Your task to perform on an android device: uninstall "Grab" Image 0: 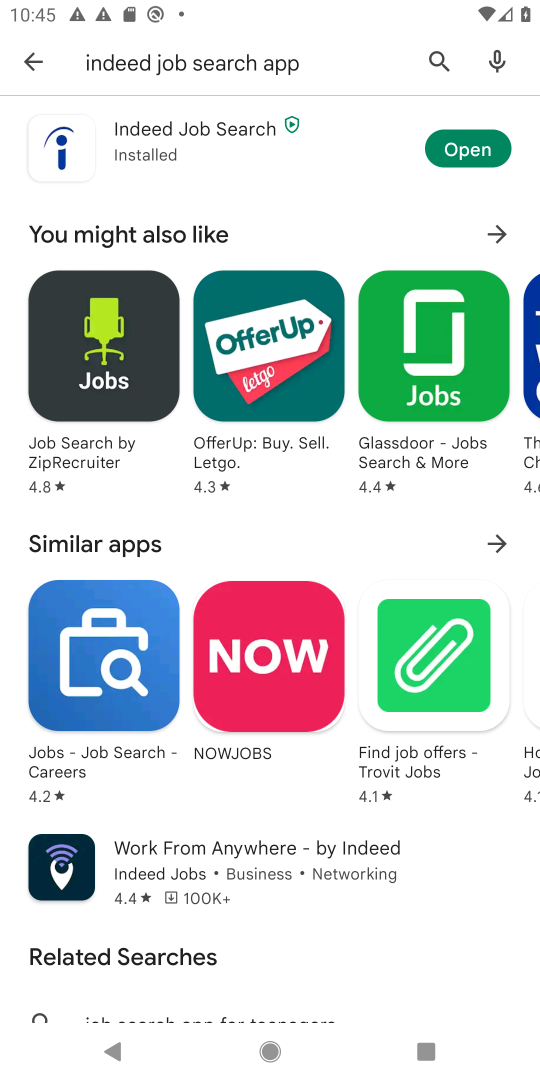
Step 0: click (434, 58)
Your task to perform on an android device: uninstall "Grab" Image 1: 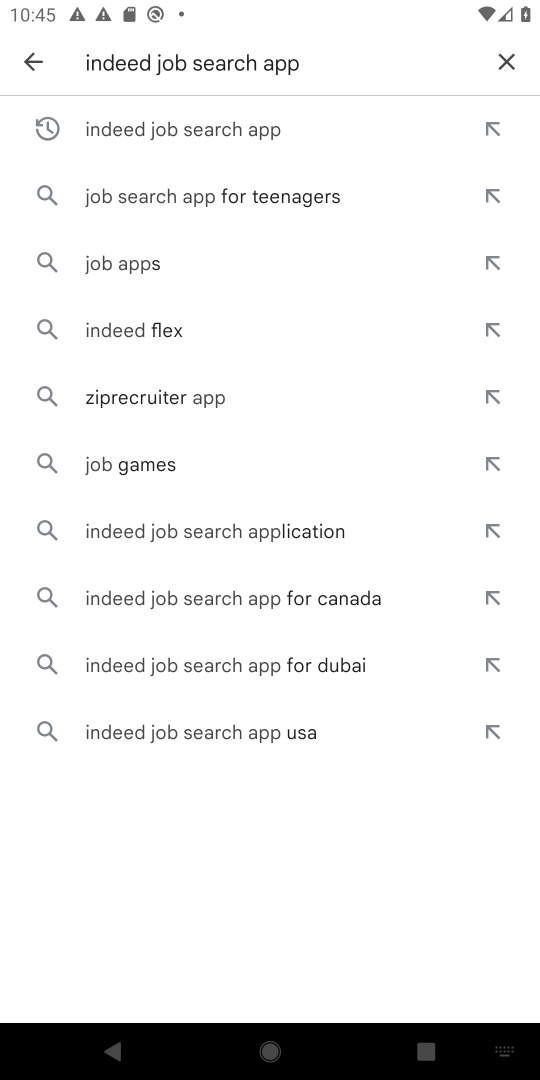
Step 1: click (511, 58)
Your task to perform on an android device: uninstall "Grab" Image 2: 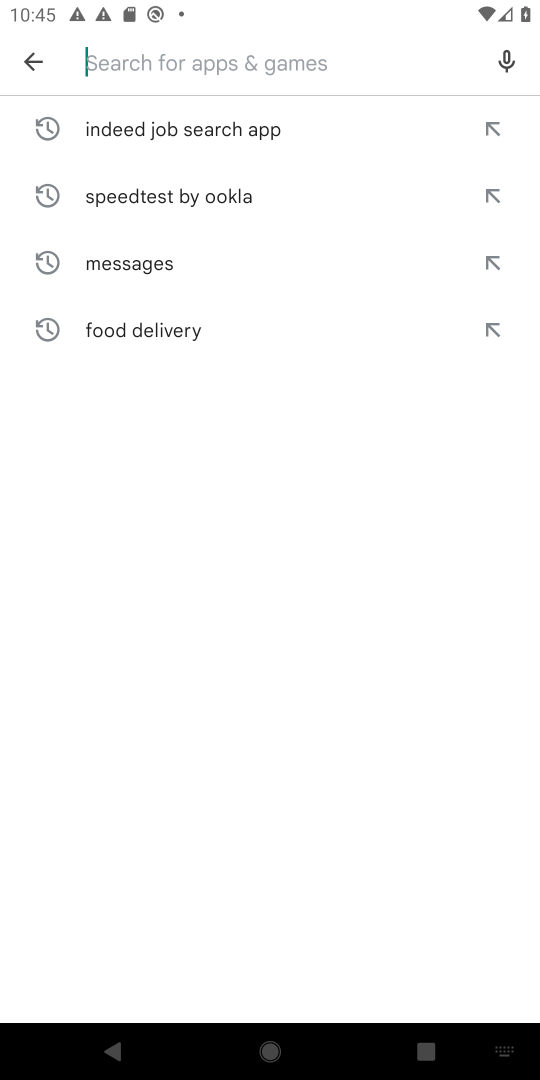
Step 2: type "Grab"
Your task to perform on an android device: uninstall "Grab" Image 3: 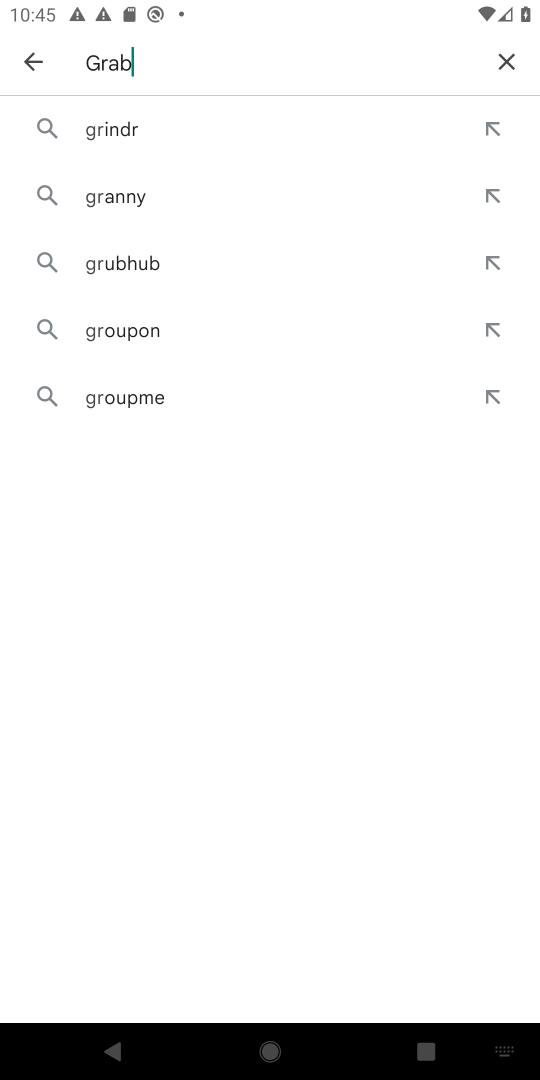
Step 3: type ""
Your task to perform on an android device: uninstall "Grab" Image 4: 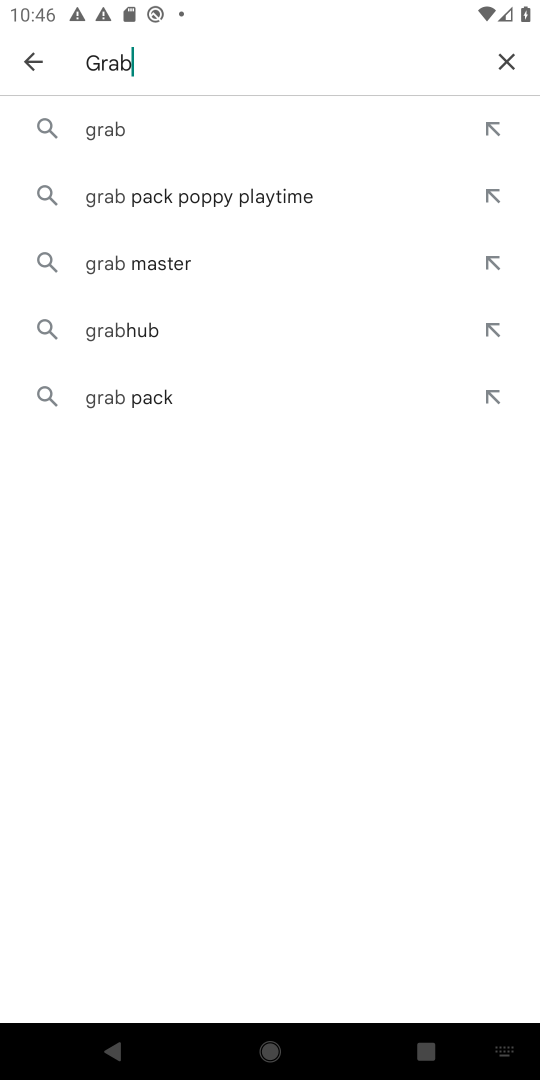
Step 4: click (99, 132)
Your task to perform on an android device: uninstall "Grab" Image 5: 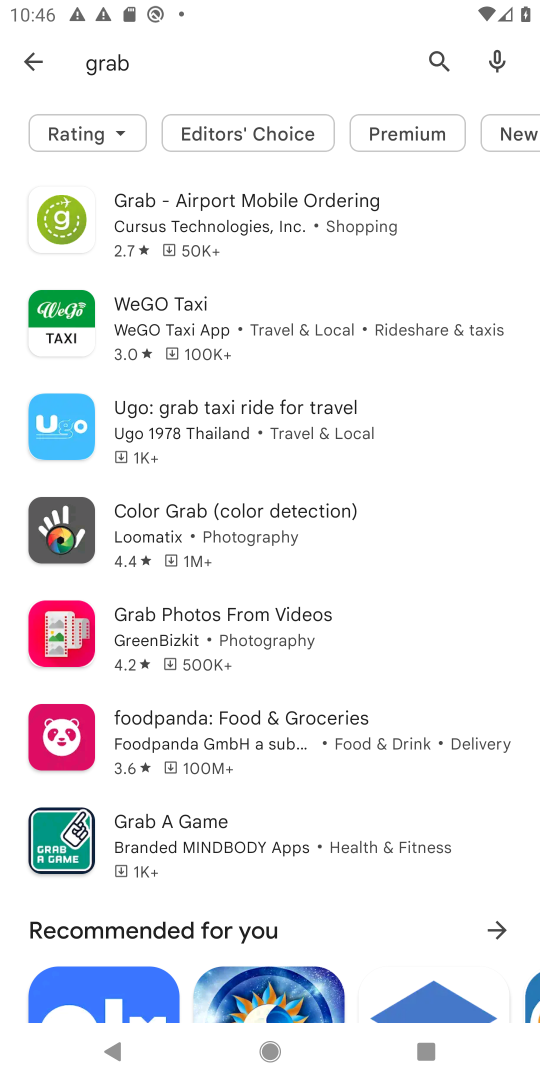
Step 5: click (159, 220)
Your task to perform on an android device: uninstall "Grab" Image 6: 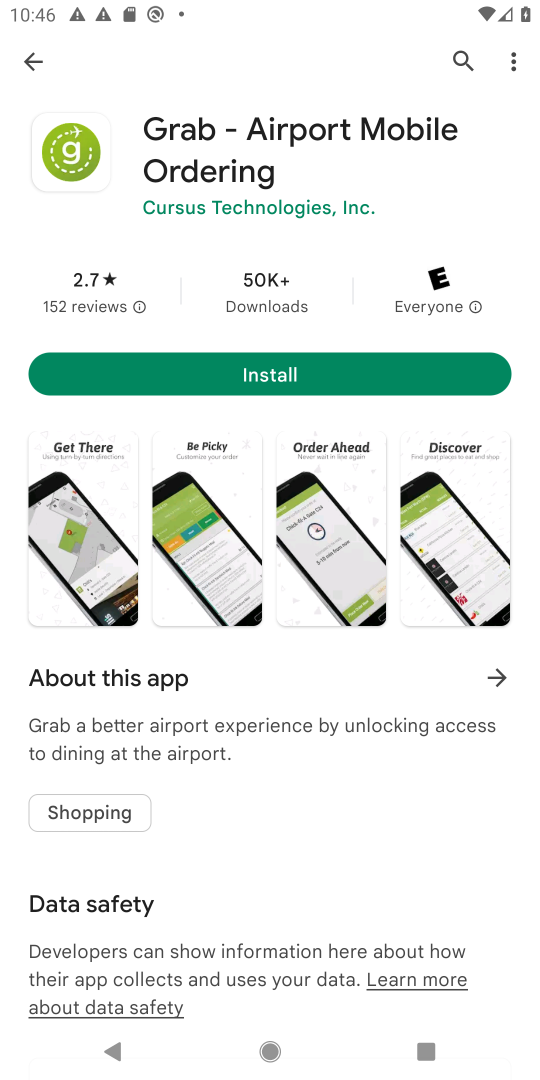
Step 6: task complete